Your task to perform on an android device: Open the Play Movies app and select the watchlist tab. Image 0: 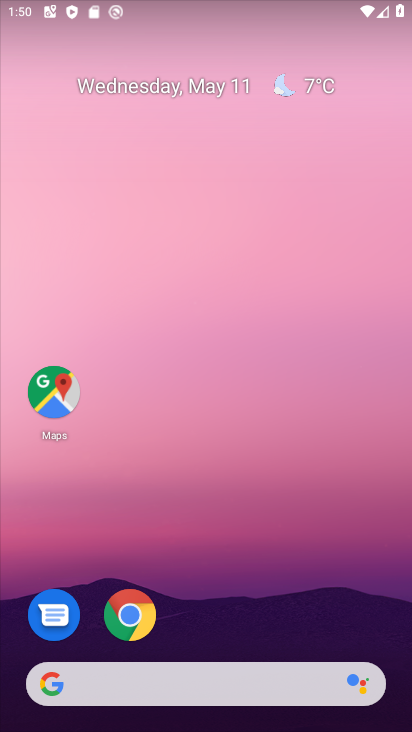
Step 0: drag from (263, 635) to (336, 187)
Your task to perform on an android device: Open the Play Movies app and select the watchlist tab. Image 1: 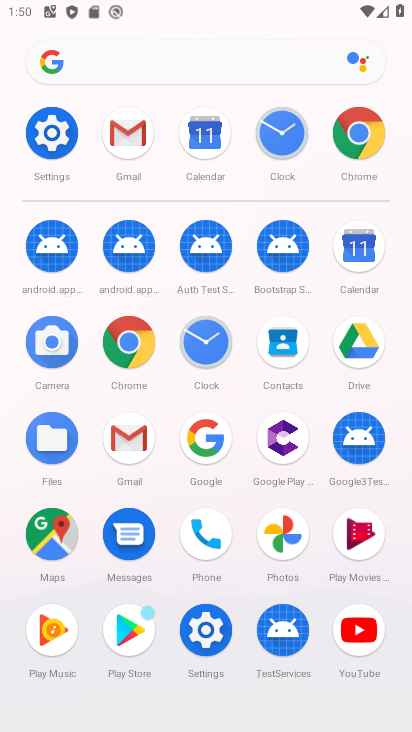
Step 1: click (360, 534)
Your task to perform on an android device: Open the Play Movies app and select the watchlist tab. Image 2: 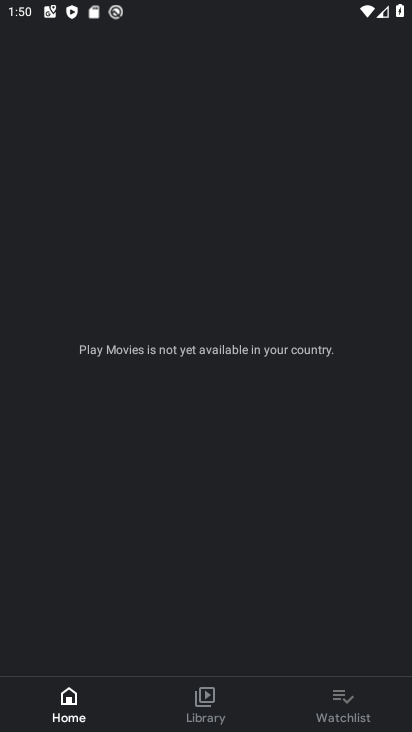
Step 2: click (367, 697)
Your task to perform on an android device: Open the Play Movies app and select the watchlist tab. Image 3: 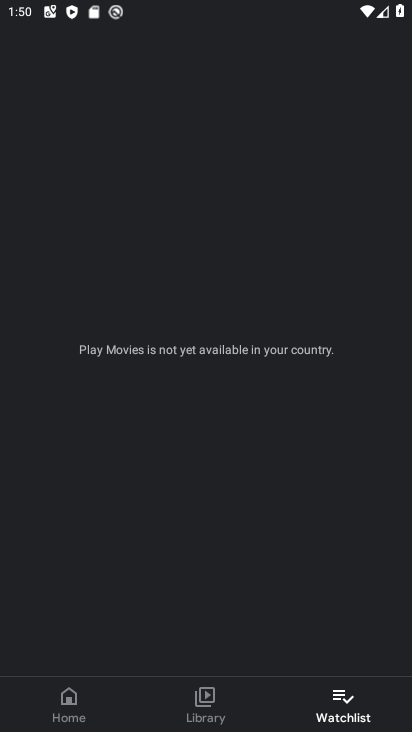
Step 3: task complete